Your task to perform on an android device: turn off priority inbox in the gmail app Image 0: 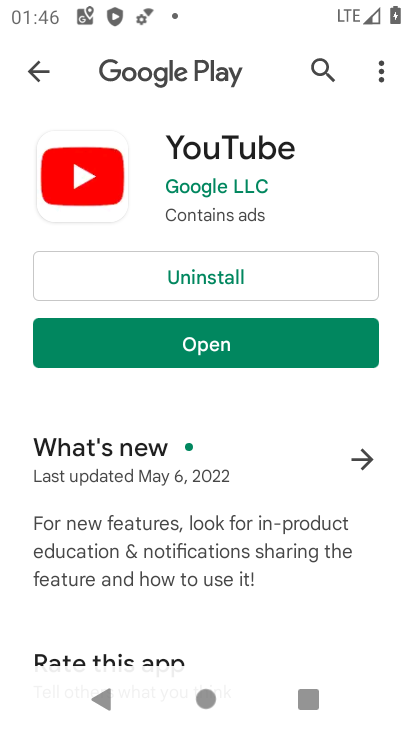
Step 0: press home button
Your task to perform on an android device: turn off priority inbox in the gmail app Image 1: 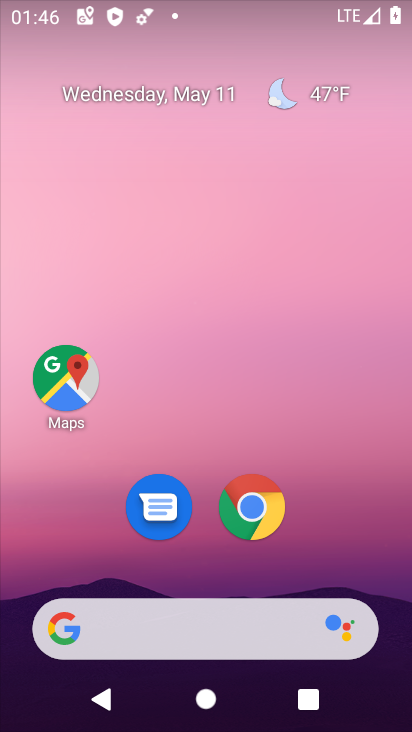
Step 1: drag from (336, 527) to (224, 61)
Your task to perform on an android device: turn off priority inbox in the gmail app Image 2: 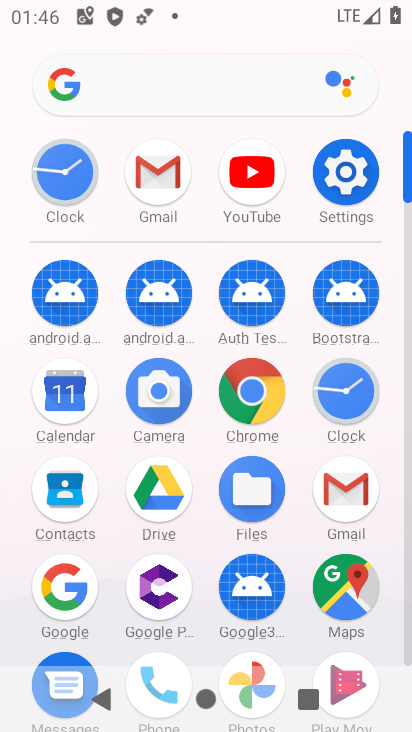
Step 2: click (161, 168)
Your task to perform on an android device: turn off priority inbox in the gmail app Image 3: 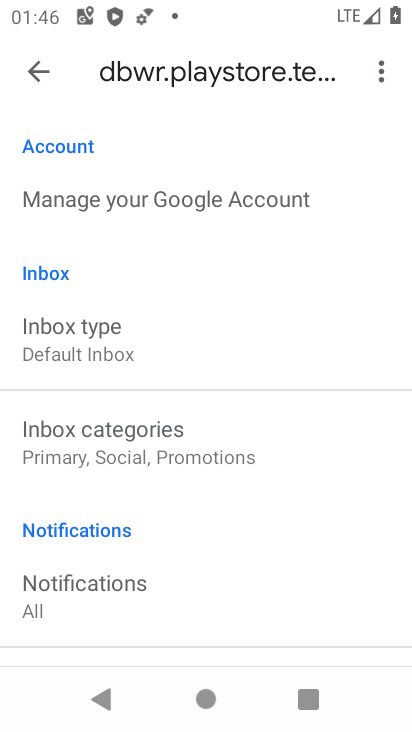
Step 3: click (71, 331)
Your task to perform on an android device: turn off priority inbox in the gmail app Image 4: 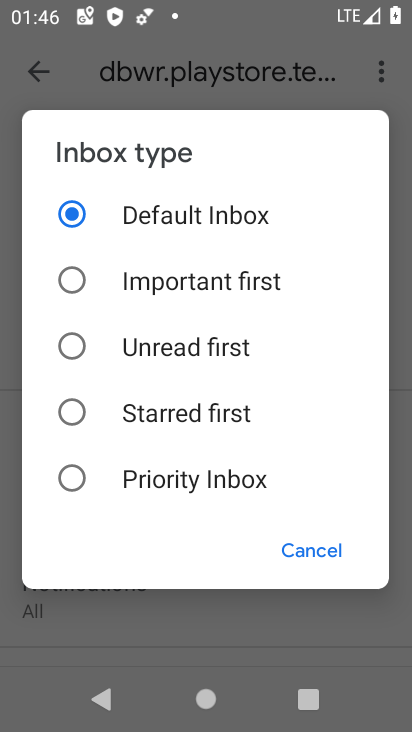
Step 4: task complete